Your task to perform on an android device: Play some music on YouTube Image 0: 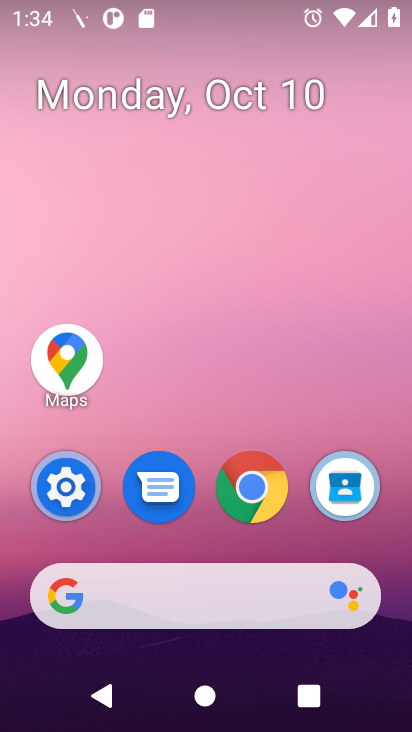
Step 0: drag from (243, 449) to (240, 212)
Your task to perform on an android device: Play some music on YouTube Image 1: 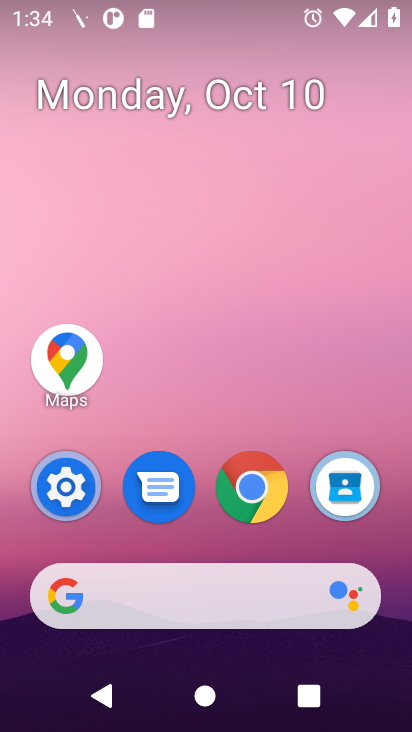
Step 1: drag from (240, 364) to (239, 158)
Your task to perform on an android device: Play some music on YouTube Image 2: 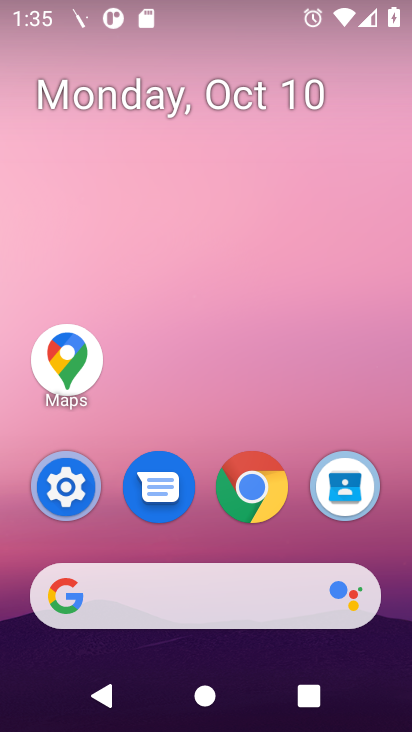
Step 2: drag from (219, 664) to (172, 142)
Your task to perform on an android device: Play some music on YouTube Image 3: 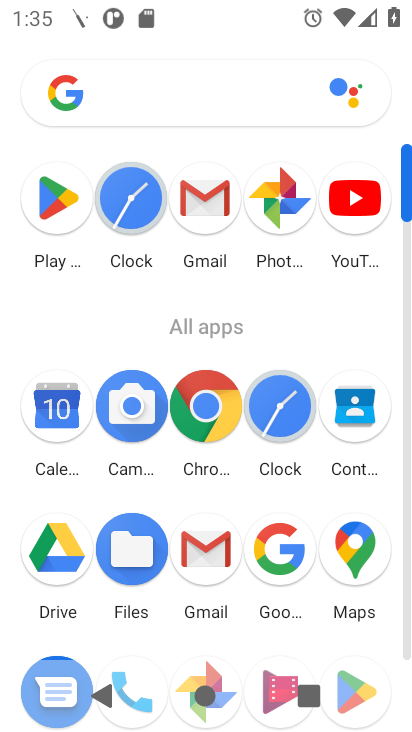
Step 3: click (340, 213)
Your task to perform on an android device: Play some music on YouTube Image 4: 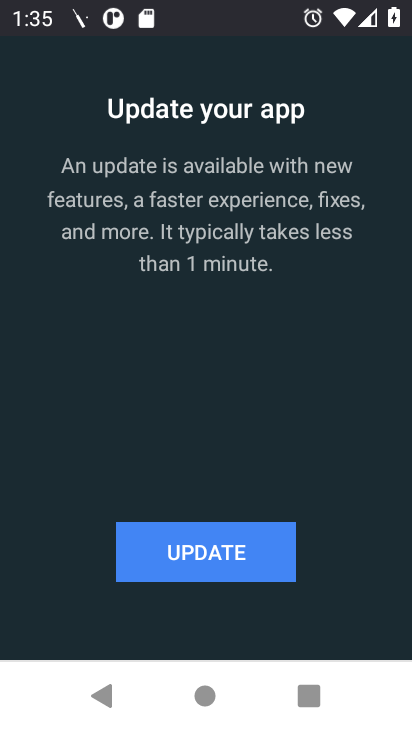
Step 4: click (225, 564)
Your task to perform on an android device: Play some music on YouTube Image 5: 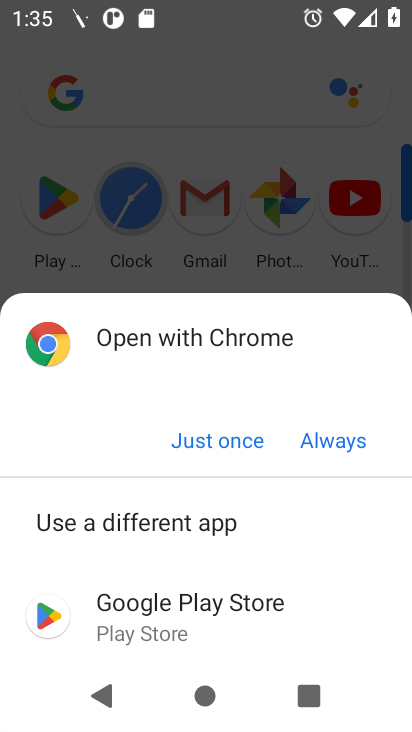
Step 5: click (226, 445)
Your task to perform on an android device: Play some music on YouTube Image 6: 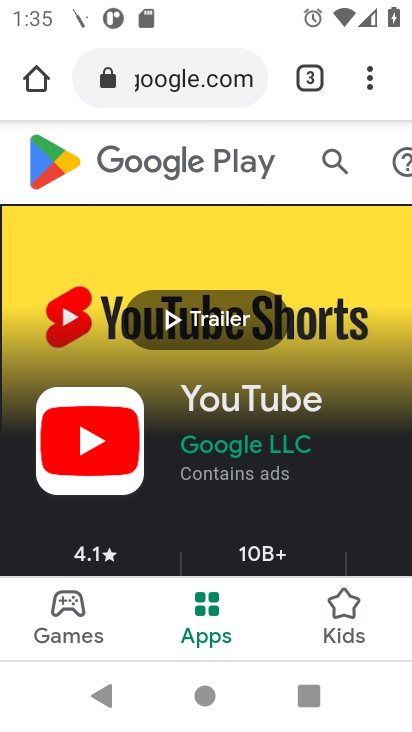
Step 6: click (177, 93)
Your task to perform on an android device: Play some music on YouTube Image 7: 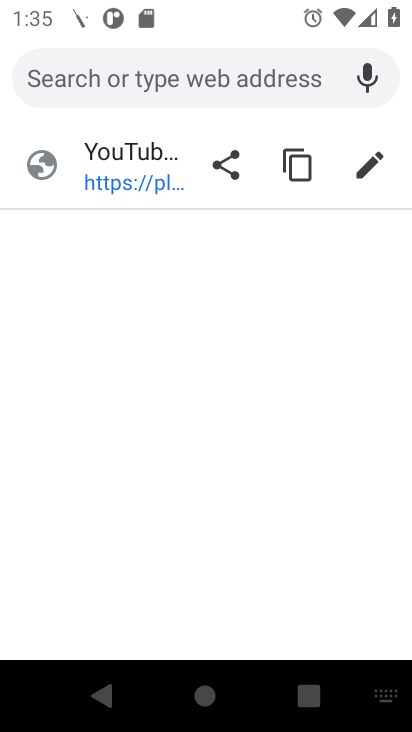
Step 7: press enter
Your task to perform on an android device: Play some music on YouTube Image 8: 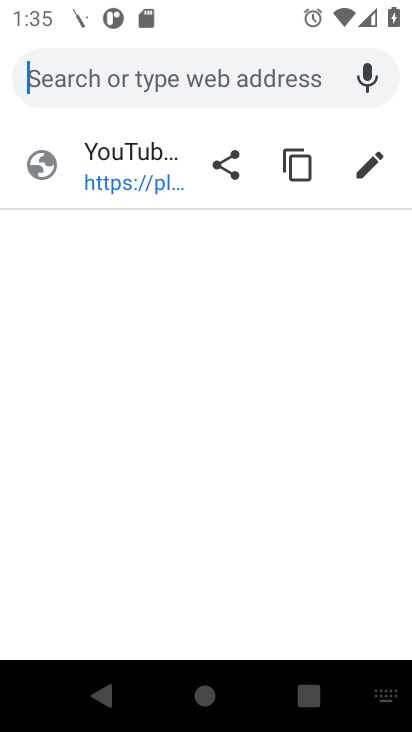
Step 8: type "youtube"
Your task to perform on an android device: Play some music on YouTube Image 9: 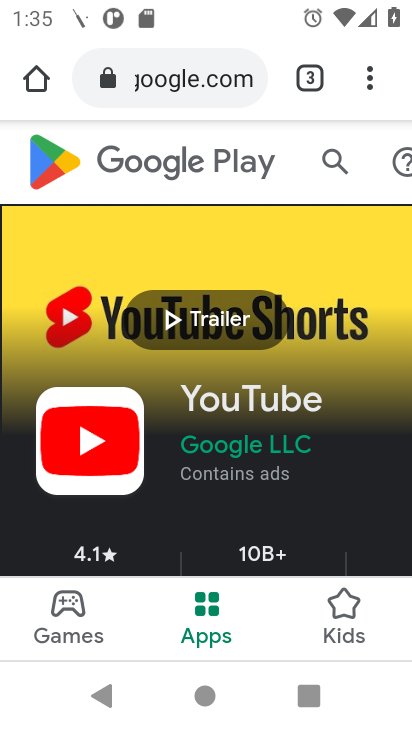
Step 9: press enter
Your task to perform on an android device: Play some music on YouTube Image 10: 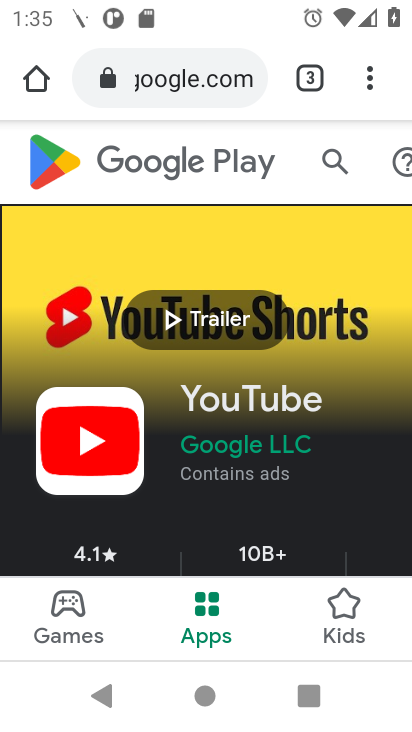
Step 10: click (316, 80)
Your task to perform on an android device: Play some music on YouTube Image 11: 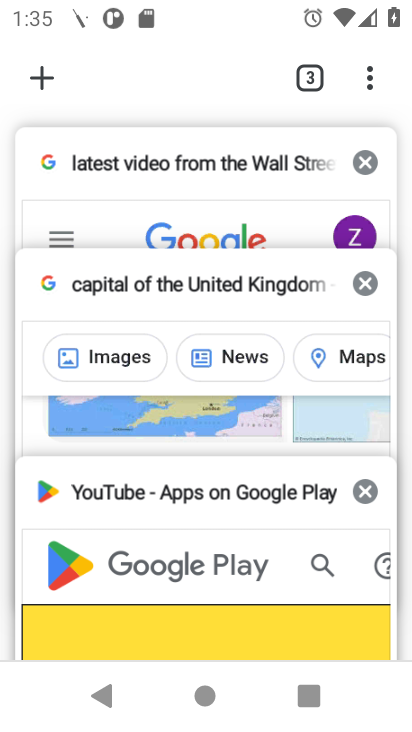
Step 11: click (352, 286)
Your task to perform on an android device: Play some music on YouTube Image 12: 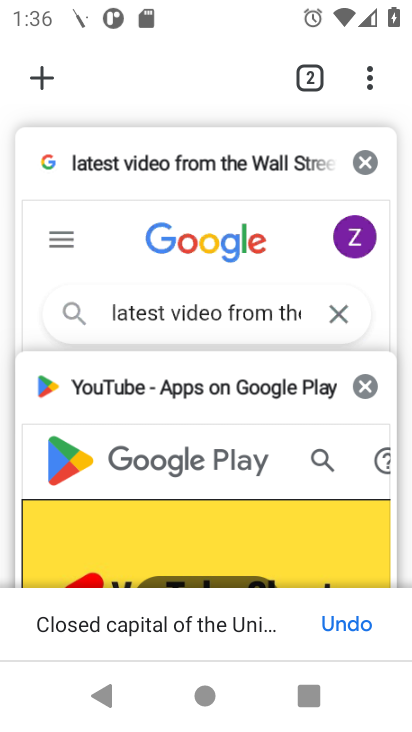
Step 12: click (364, 167)
Your task to perform on an android device: Play some music on YouTube Image 13: 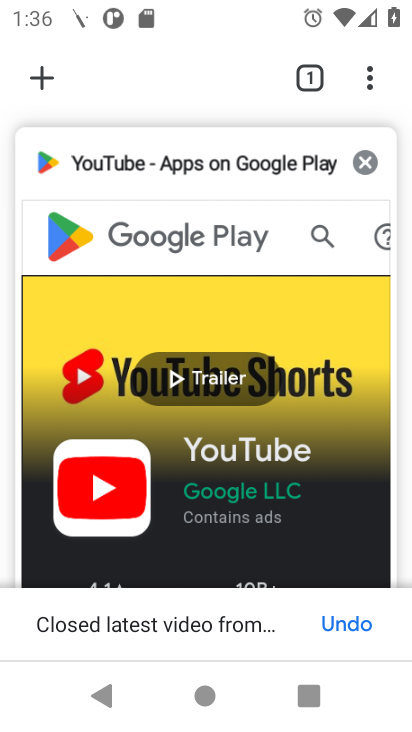
Step 13: click (364, 171)
Your task to perform on an android device: Play some music on YouTube Image 14: 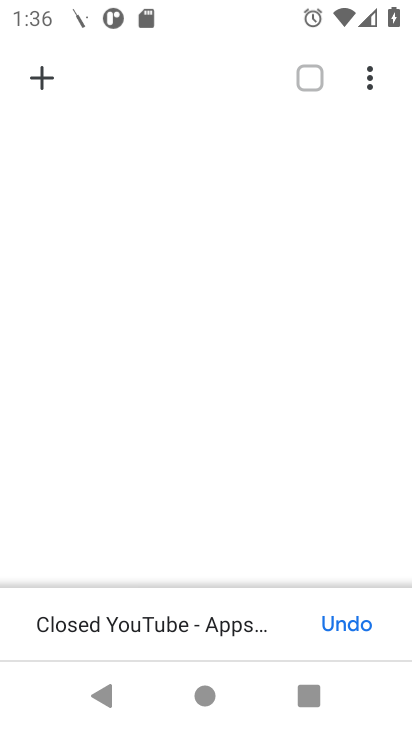
Step 14: click (45, 88)
Your task to perform on an android device: Play some music on YouTube Image 15: 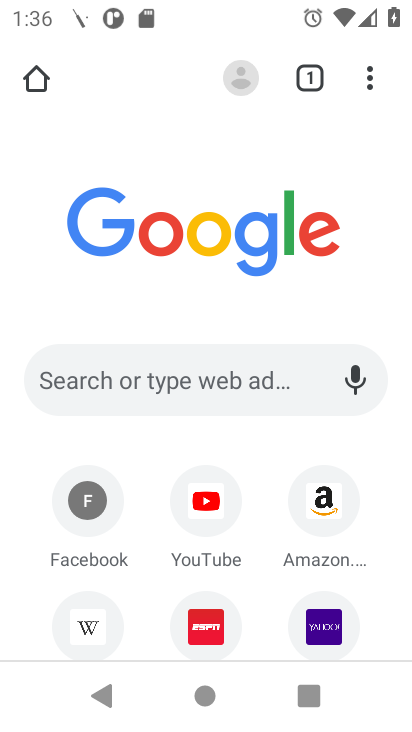
Step 15: click (192, 378)
Your task to perform on an android device: Play some music on YouTube Image 16: 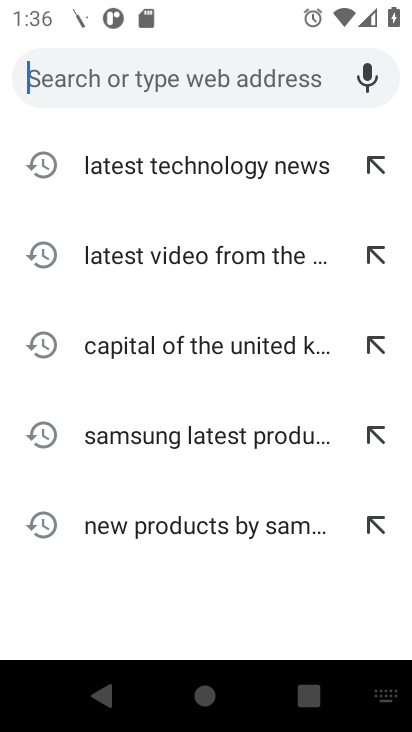
Step 16: type "youtube"
Your task to perform on an android device: Play some music on YouTube Image 17: 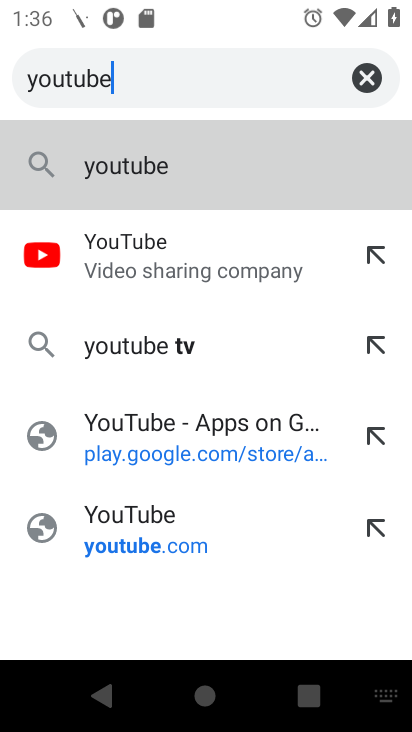
Step 17: type ""
Your task to perform on an android device: Play some music on YouTube Image 18: 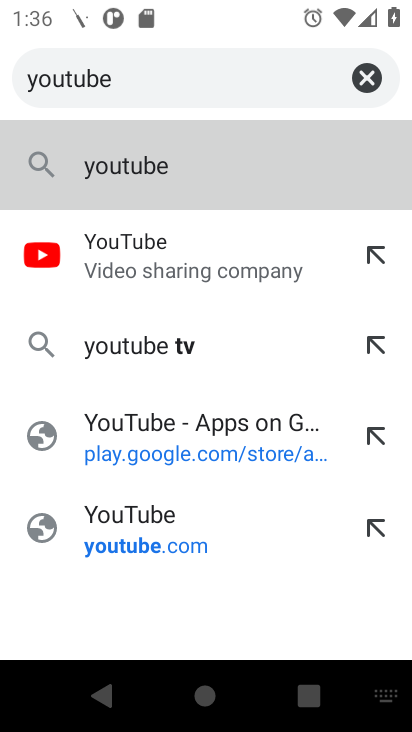
Step 18: press enter
Your task to perform on an android device: Play some music on YouTube Image 19: 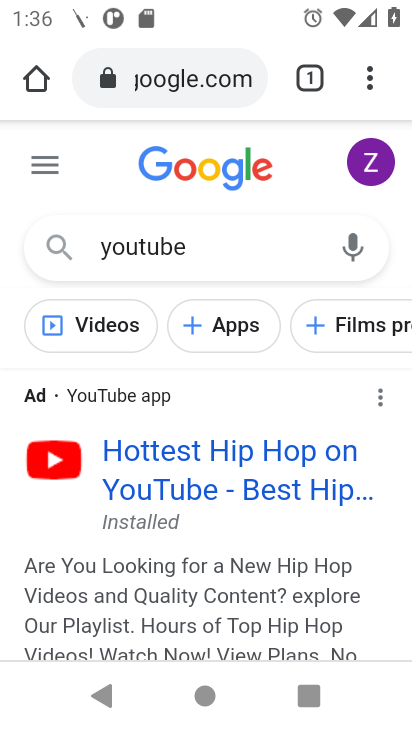
Step 19: click (199, 489)
Your task to perform on an android device: Play some music on YouTube Image 20: 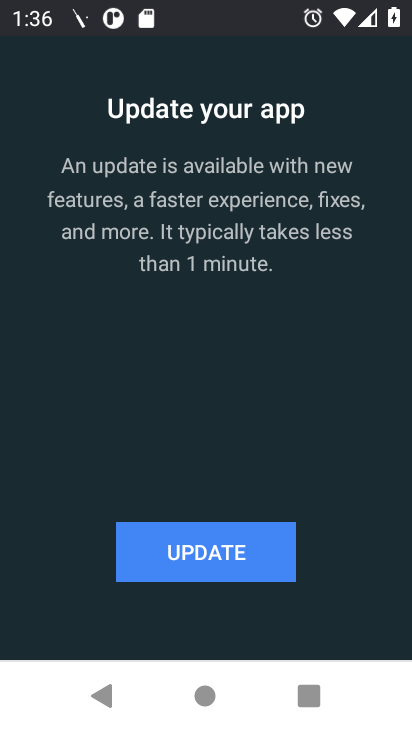
Step 20: press back button
Your task to perform on an android device: Play some music on YouTube Image 21: 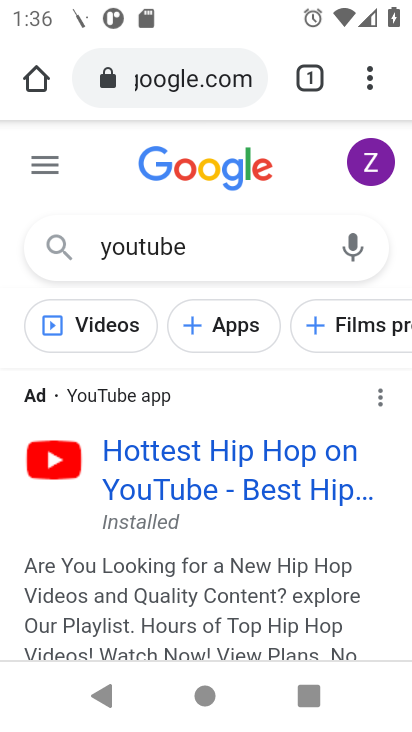
Step 21: drag from (246, 540) to (204, 189)
Your task to perform on an android device: Play some music on YouTube Image 22: 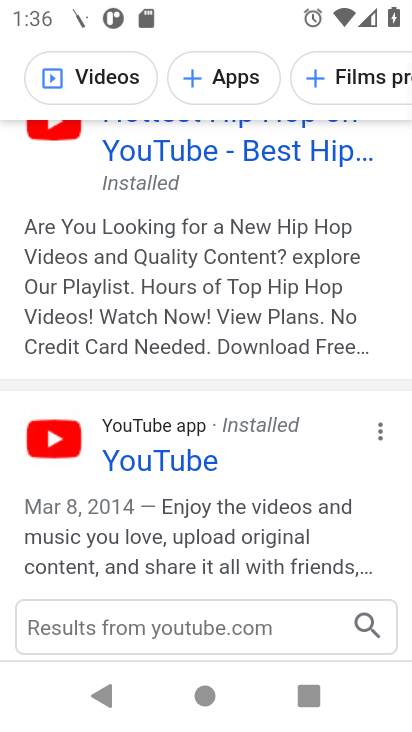
Step 22: drag from (202, 607) to (194, 261)
Your task to perform on an android device: Play some music on YouTube Image 23: 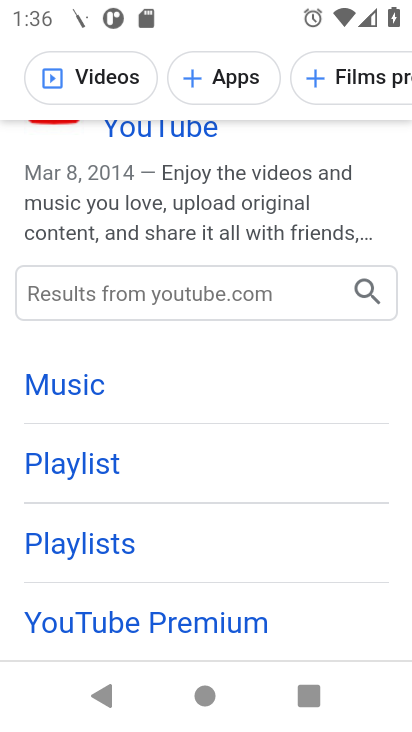
Step 23: drag from (192, 555) to (186, 267)
Your task to perform on an android device: Play some music on YouTube Image 24: 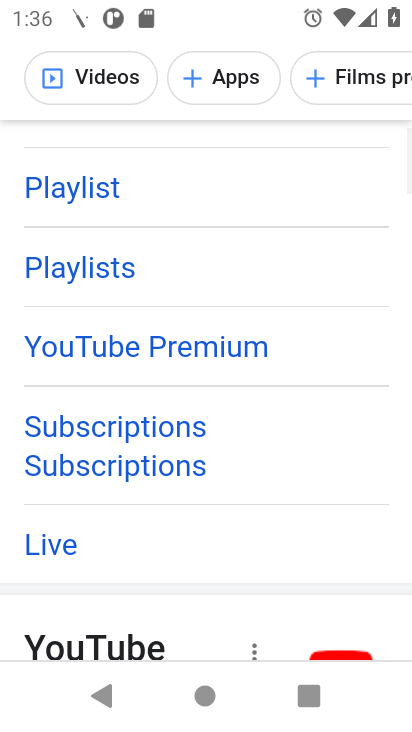
Step 24: drag from (209, 584) to (195, 294)
Your task to perform on an android device: Play some music on YouTube Image 25: 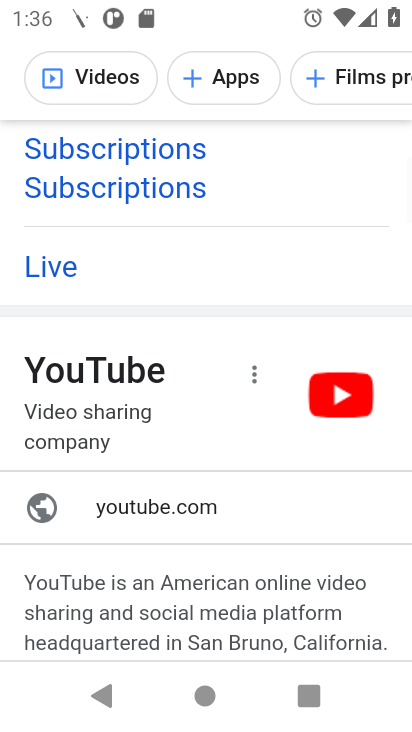
Step 25: drag from (225, 541) to (221, 432)
Your task to perform on an android device: Play some music on YouTube Image 26: 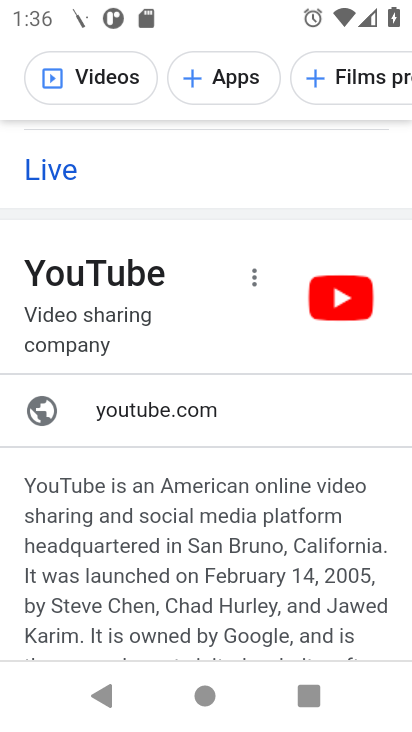
Step 26: click (144, 414)
Your task to perform on an android device: Play some music on YouTube Image 27: 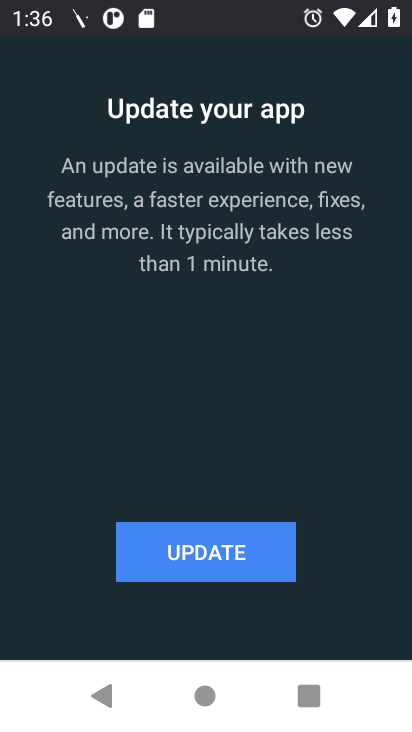
Step 27: click (99, 717)
Your task to perform on an android device: Play some music on YouTube Image 28: 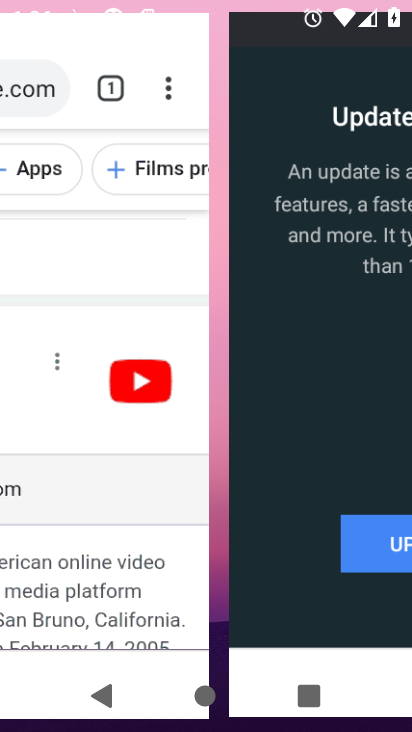
Step 28: press back button
Your task to perform on an android device: Play some music on YouTube Image 29: 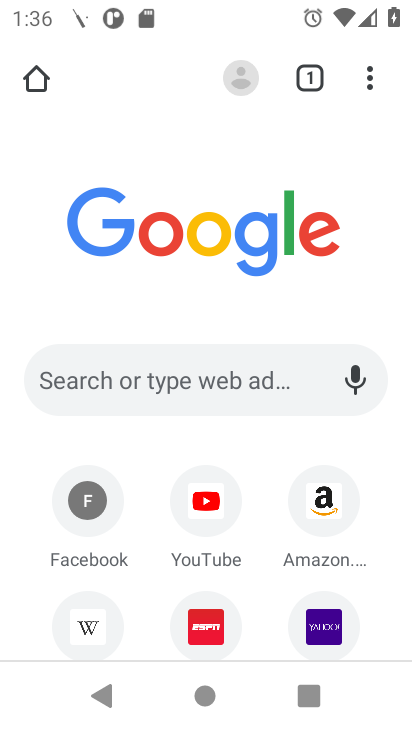
Step 29: click (201, 528)
Your task to perform on an android device: Play some music on YouTube Image 30: 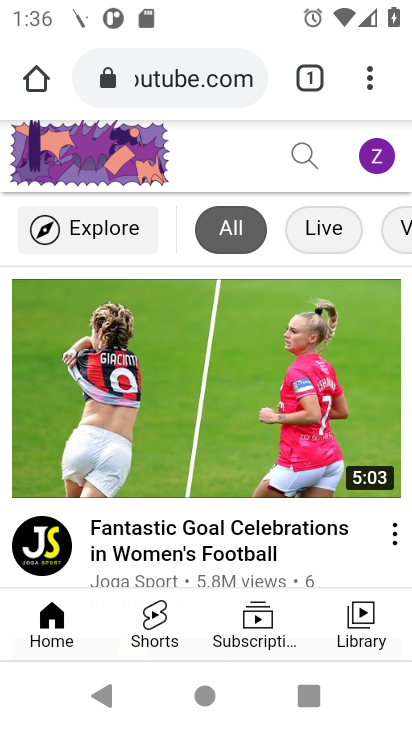
Step 30: click (282, 162)
Your task to perform on an android device: Play some music on YouTube Image 31: 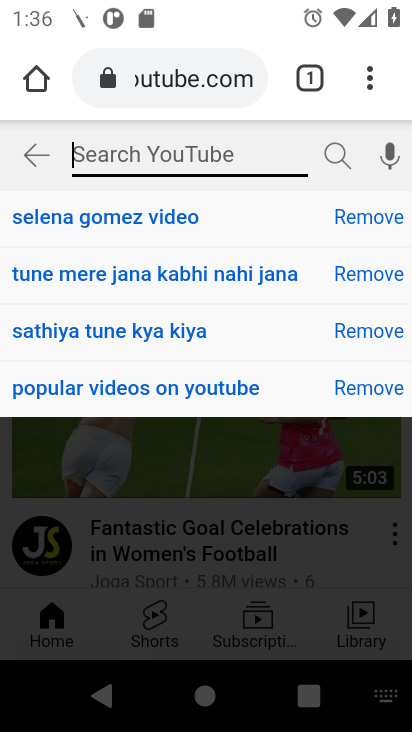
Step 31: type "music"
Your task to perform on an android device: Play some music on YouTube Image 32: 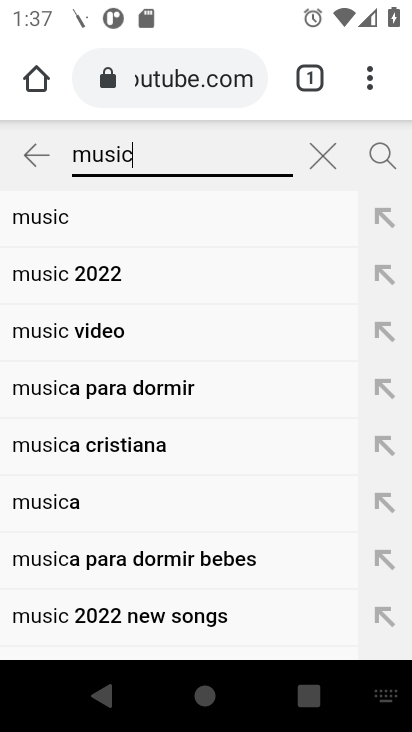
Step 32: press enter
Your task to perform on an android device: Play some music on YouTube Image 33: 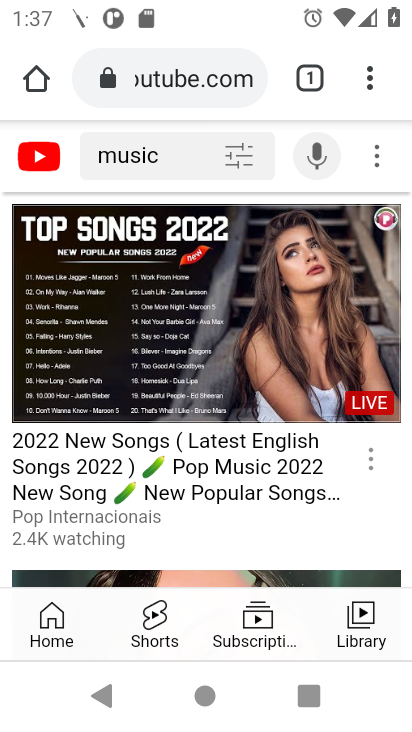
Step 33: drag from (207, 503) to (190, 281)
Your task to perform on an android device: Play some music on YouTube Image 34: 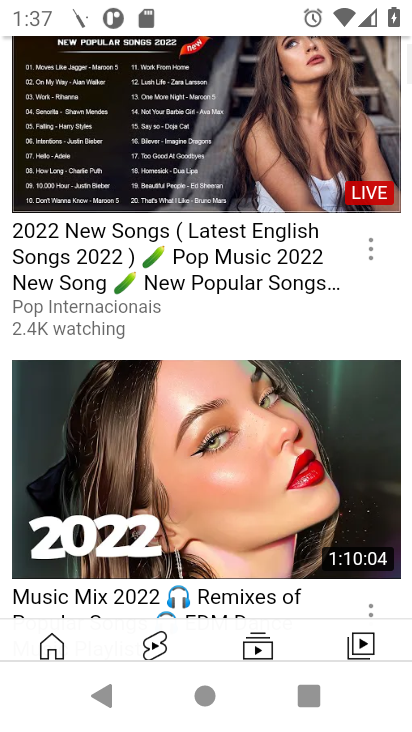
Step 34: drag from (194, 456) to (194, 355)
Your task to perform on an android device: Play some music on YouTube Image 35: 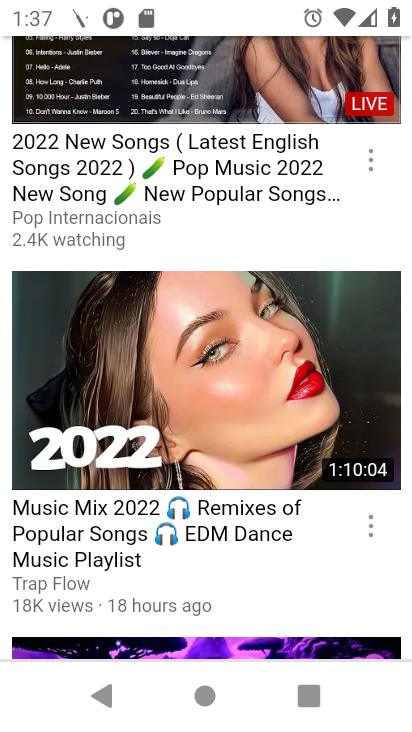
Step 35: click (191, 353)
Your task to perform on an android device: Play some music on YouTube Image 36: 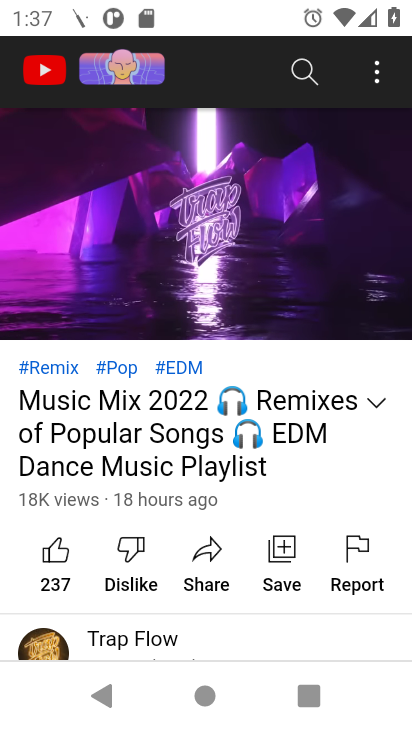
Step 36: task complete